Your task to perform on an android device: Go to sound settings Image 0: 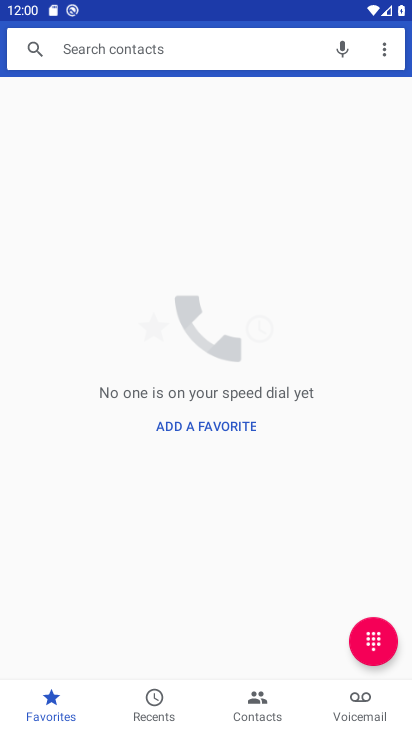
Step 0: press back button
Your task to perform on an android device: Go to sound settings Image 1: 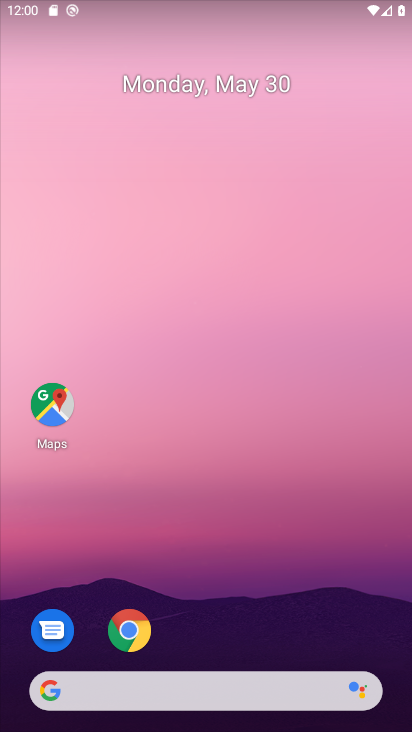
Step 1: drag from (244, 639) to (191, 145)
Your task to perform on an android device: Go to sound settings Image 2: 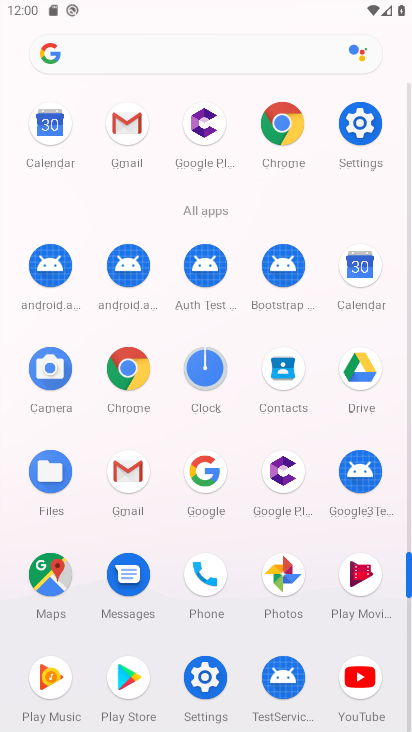
Step 2: click (203, 671)
Your task to perform on an android device: Go to sound settings Image 3: 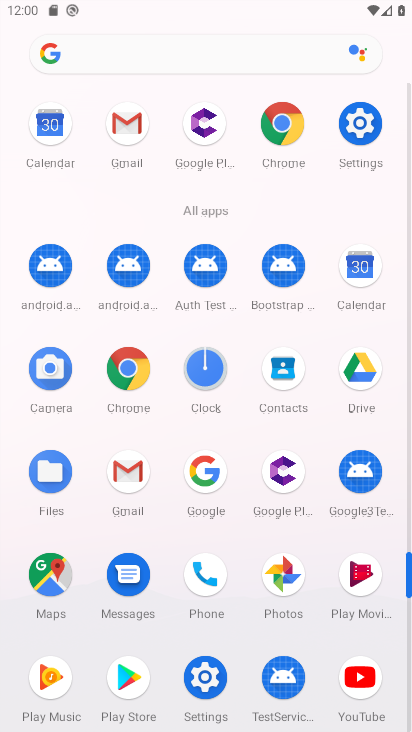
Step 3: click (202, 671)
Your task to perform on an android device: Go to sound settings Image 4: 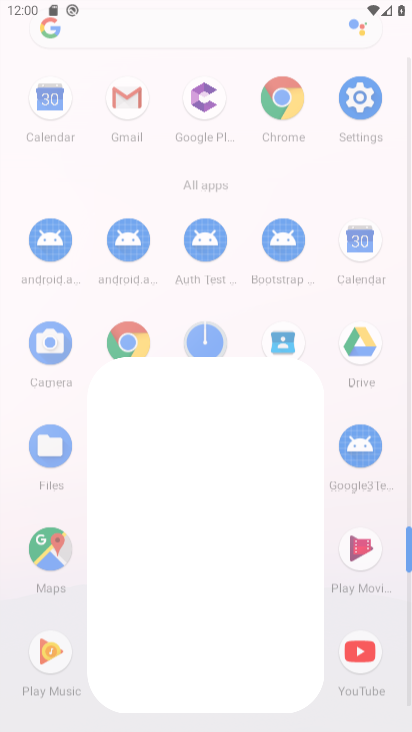
Step 4: click (202, 671)
Your task to perform on an android device: Go to sound settings Image 5: 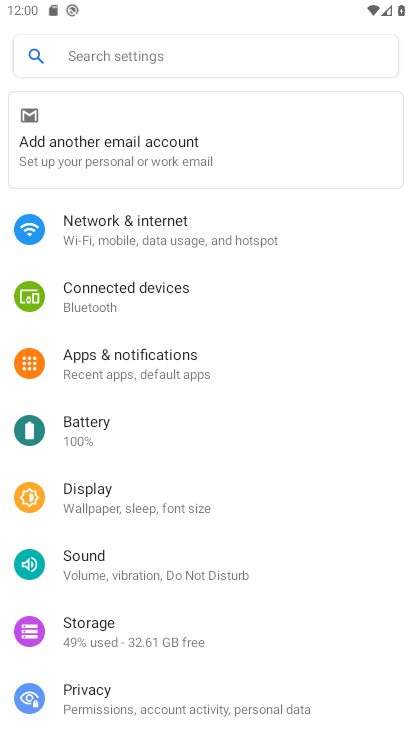
Step 5: click (80, 553)
Your task to perform on an android device: Go to sound settings Image 6: 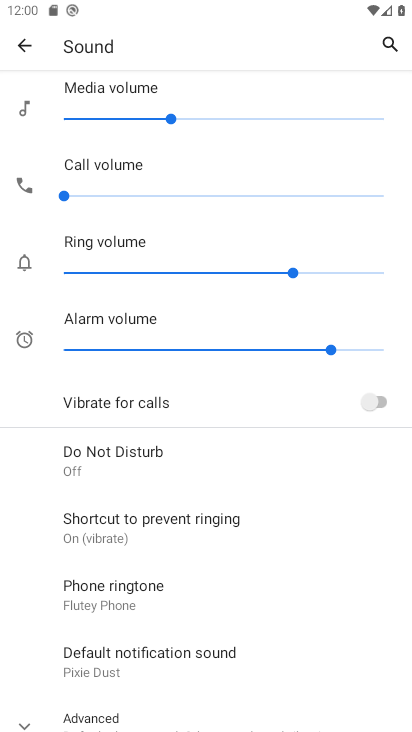
Step 6: drag from (153, 477) to (121, 114)
Your task to perform on an android device: Go to sound settings Image 7: 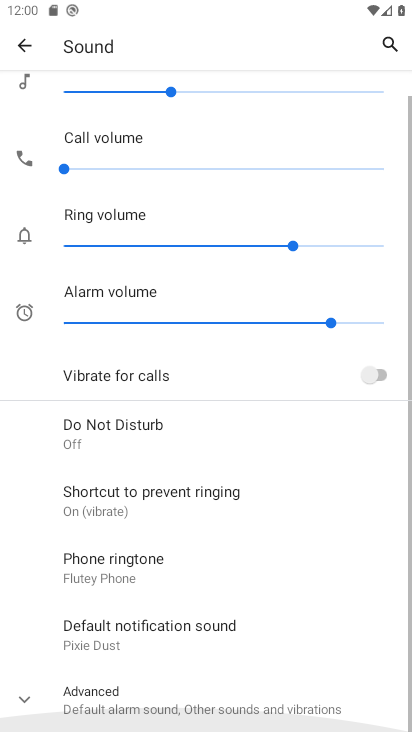
Step 7: drag from (151, 426) to (149, 162)
Your task to perform on an android device: Go to sound settings Image 8: 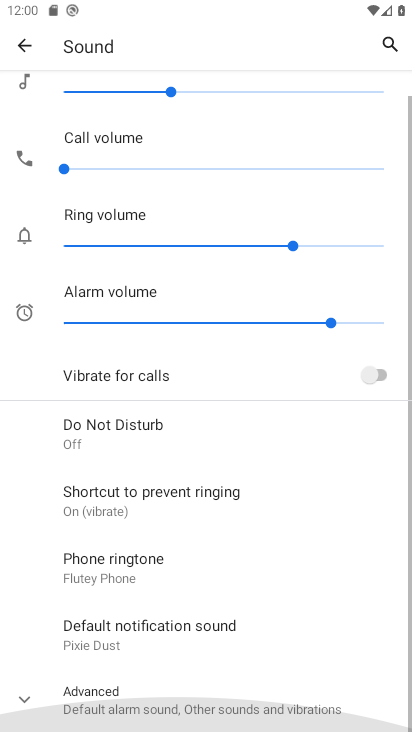
Step 8: drag from (167, 495) to (204, 244)
Your task to perform on an android device: Go to sound settings Image 9: 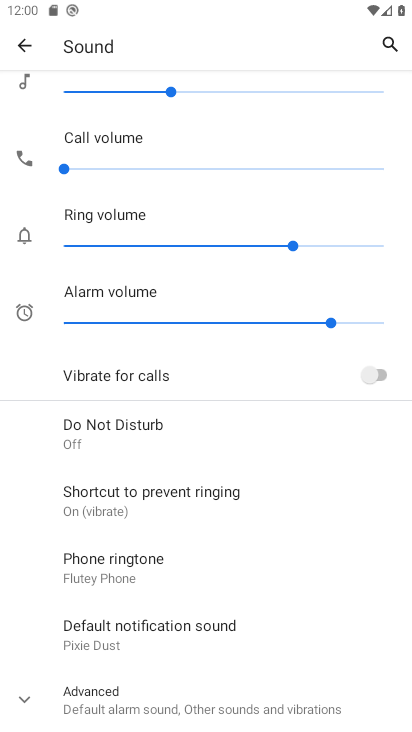
Step 9: click (79, 422)
Your task to perform on an android device: Go to sound settings Image 10: 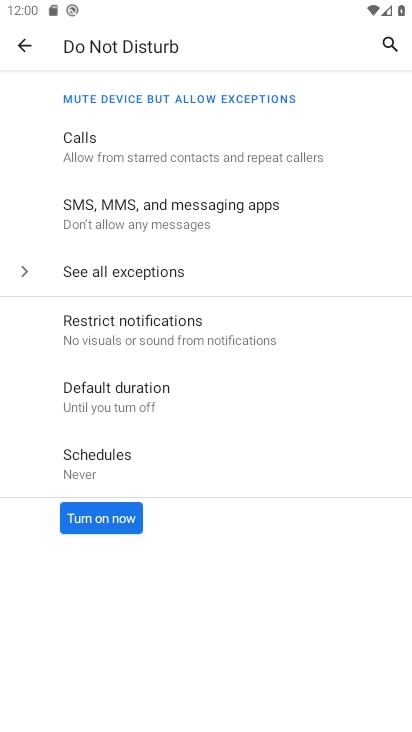
Step 10: click (94, 516)
Your task to perform on an android device: Go to sound settings Image 11: 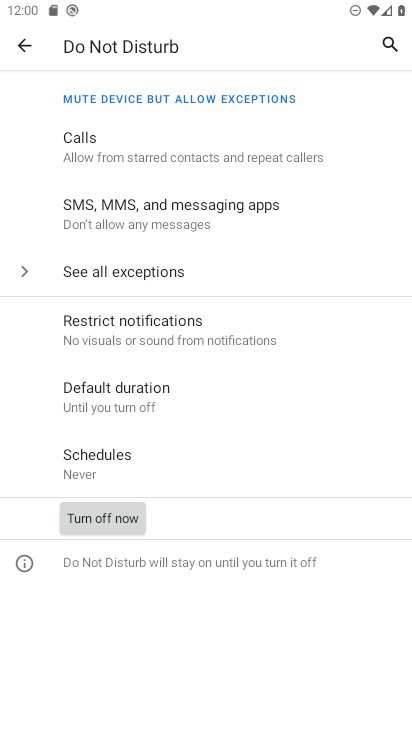
Step 11: task complete